Your task to perform on an android device: Search for the best gaming mouses on Amazon. Image 0: 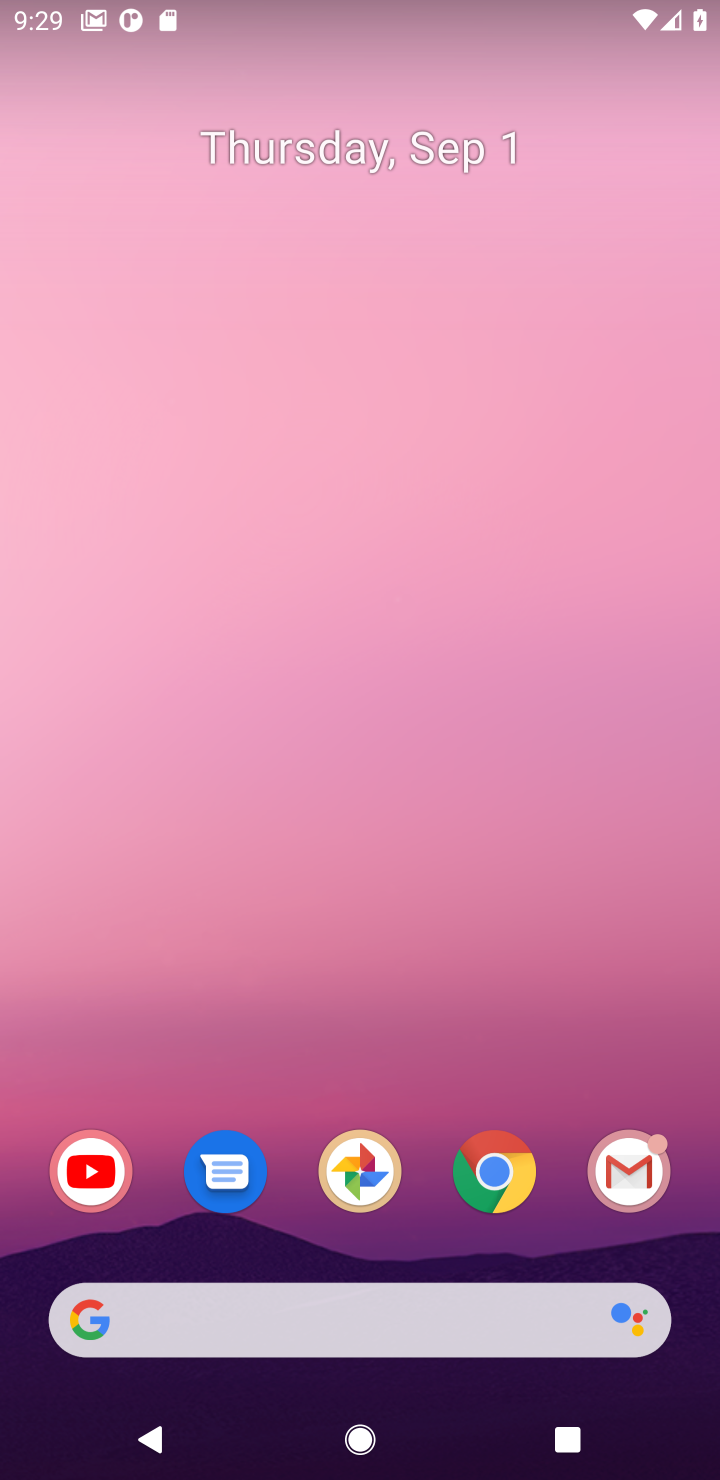
Step 0: press home button
Your task to perform on an android device: Search for the best gaming mouses on Amazon. Image 1: 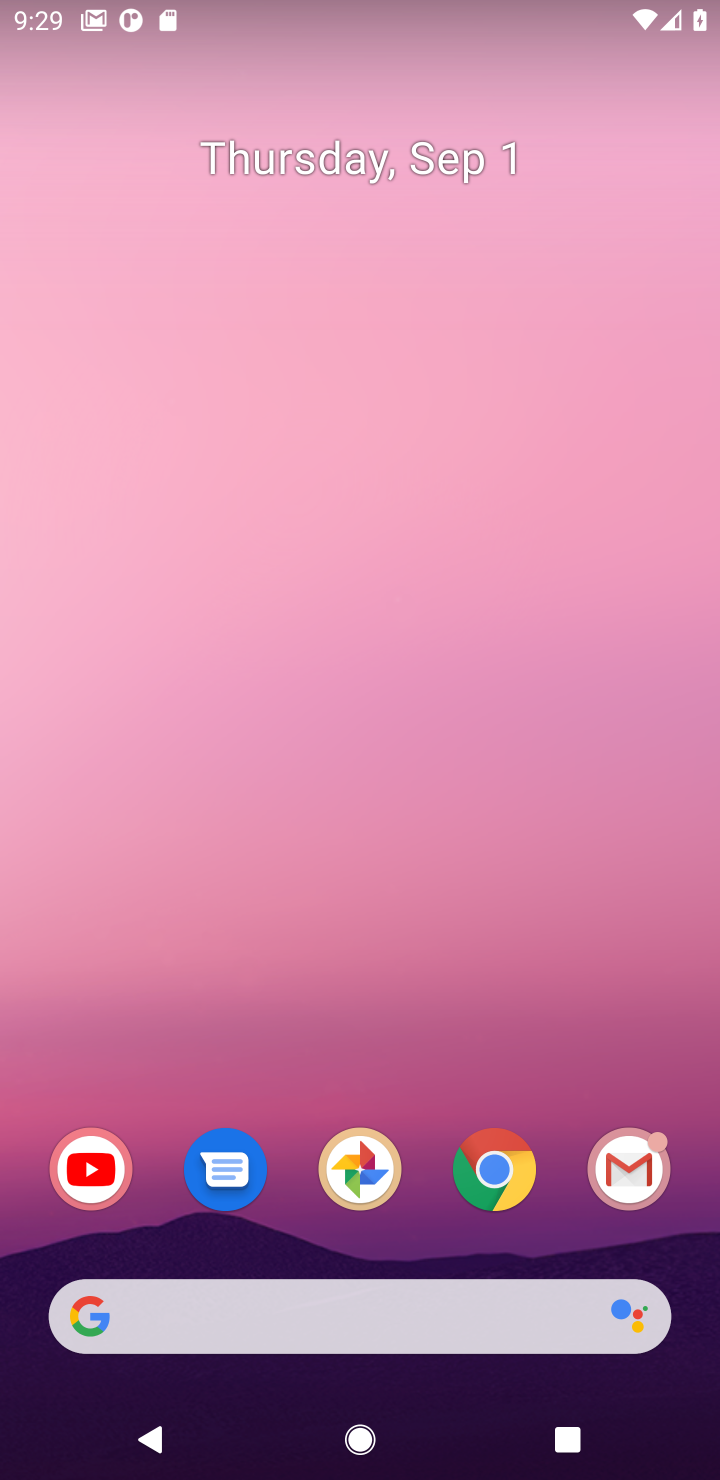
Step 1: drag from (423, 1129) to (411, 95)
Your task to perform on an android device: Search for the best gaming mouses on Amazon. Image 2: 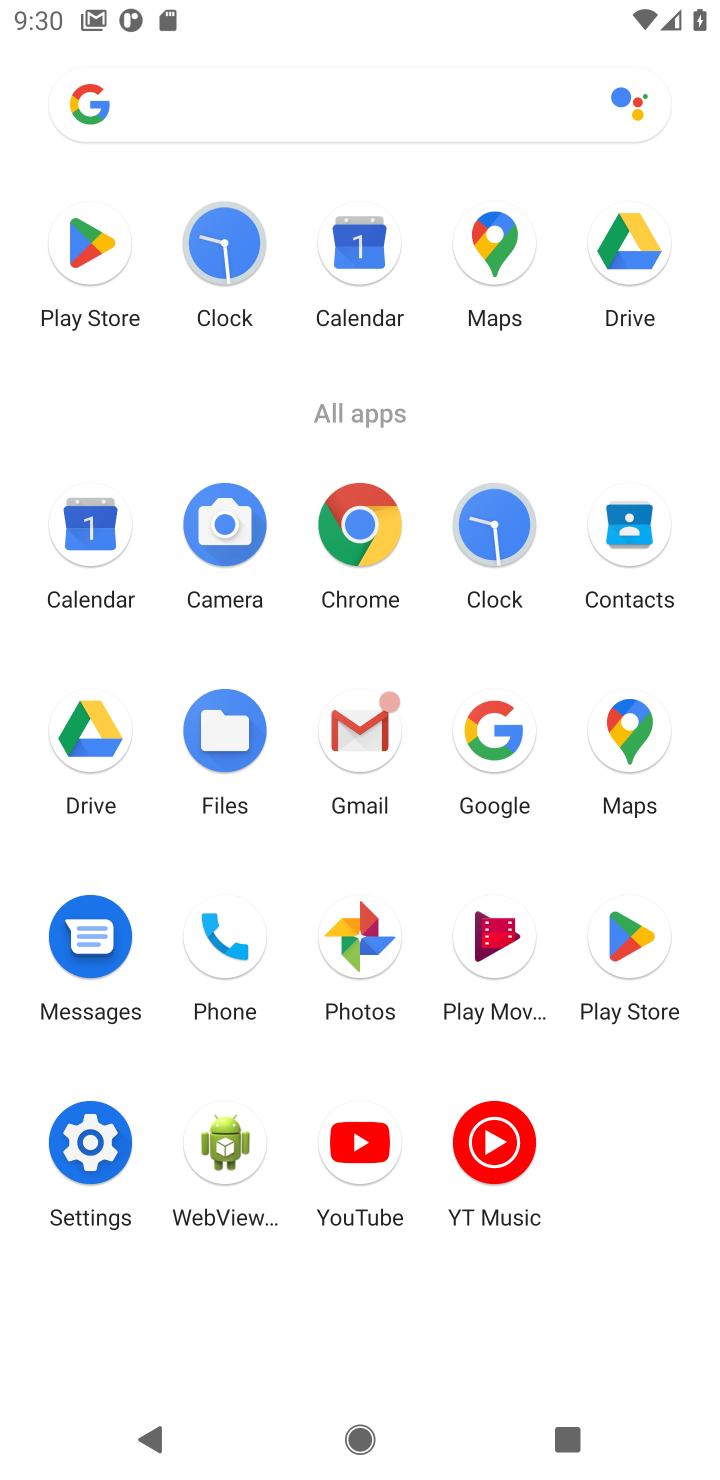
Step 2: click (364, 516)
Your task to perform on an android device: Search for the best gaming mouses on Amazon. Image 3: 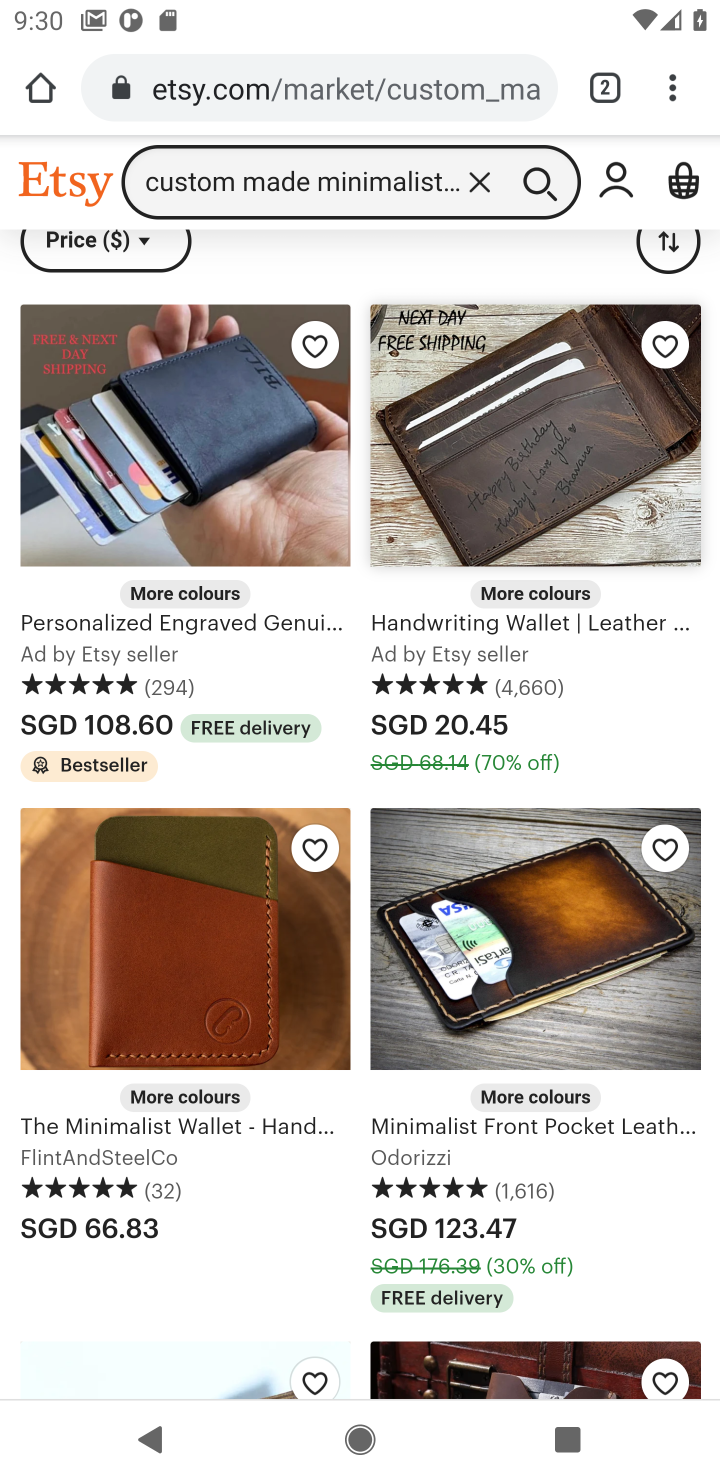
Step 3: click (270, 79)
Your task to perform on an android device: Search for the best gaming mouses on Amazon. Image 4: 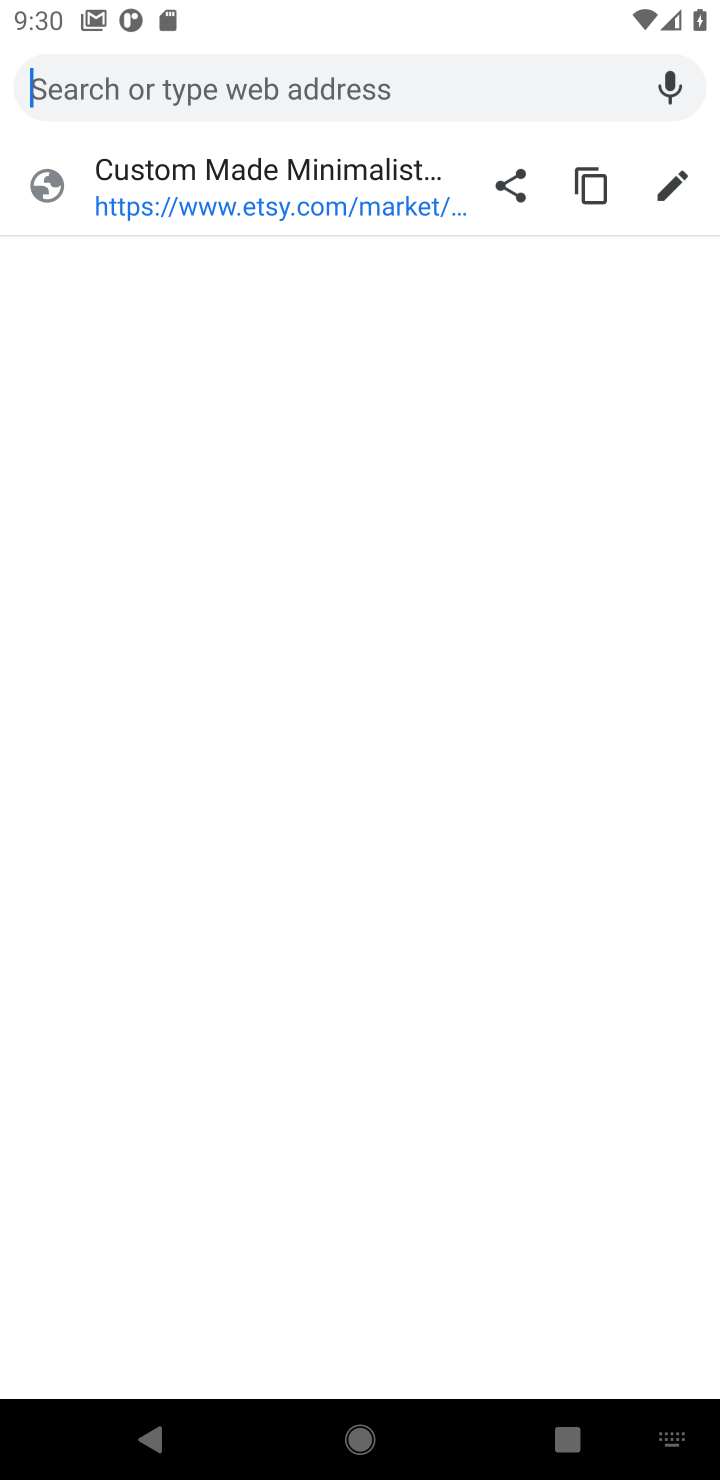
Step 4: type "best gaming mouses on Amazon"
Your task to perform on an android device: Search for the best gaming mouses on Amazon. Image 5: 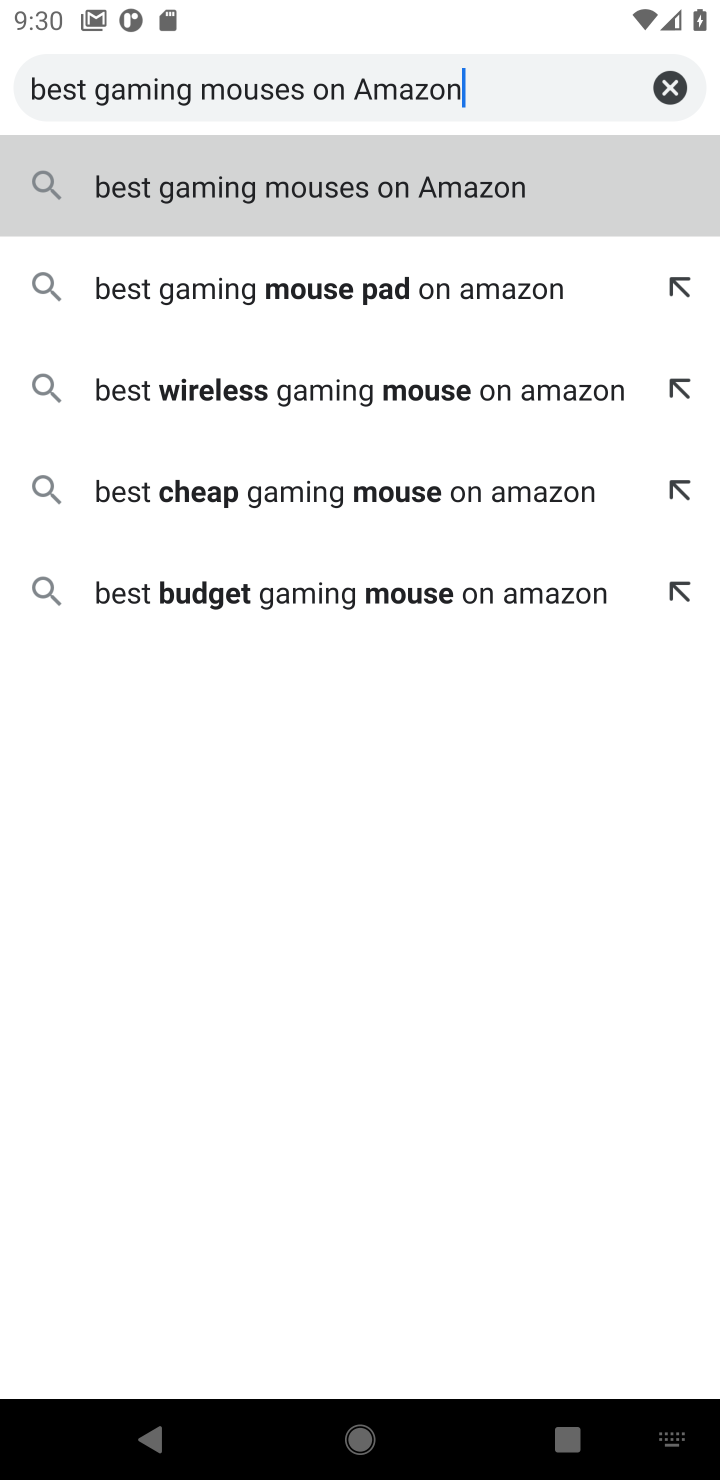
Step 5: click (374, 208)
Your task to perform on an android device: Search for the best gaming mouses on Amazon. Image 6: 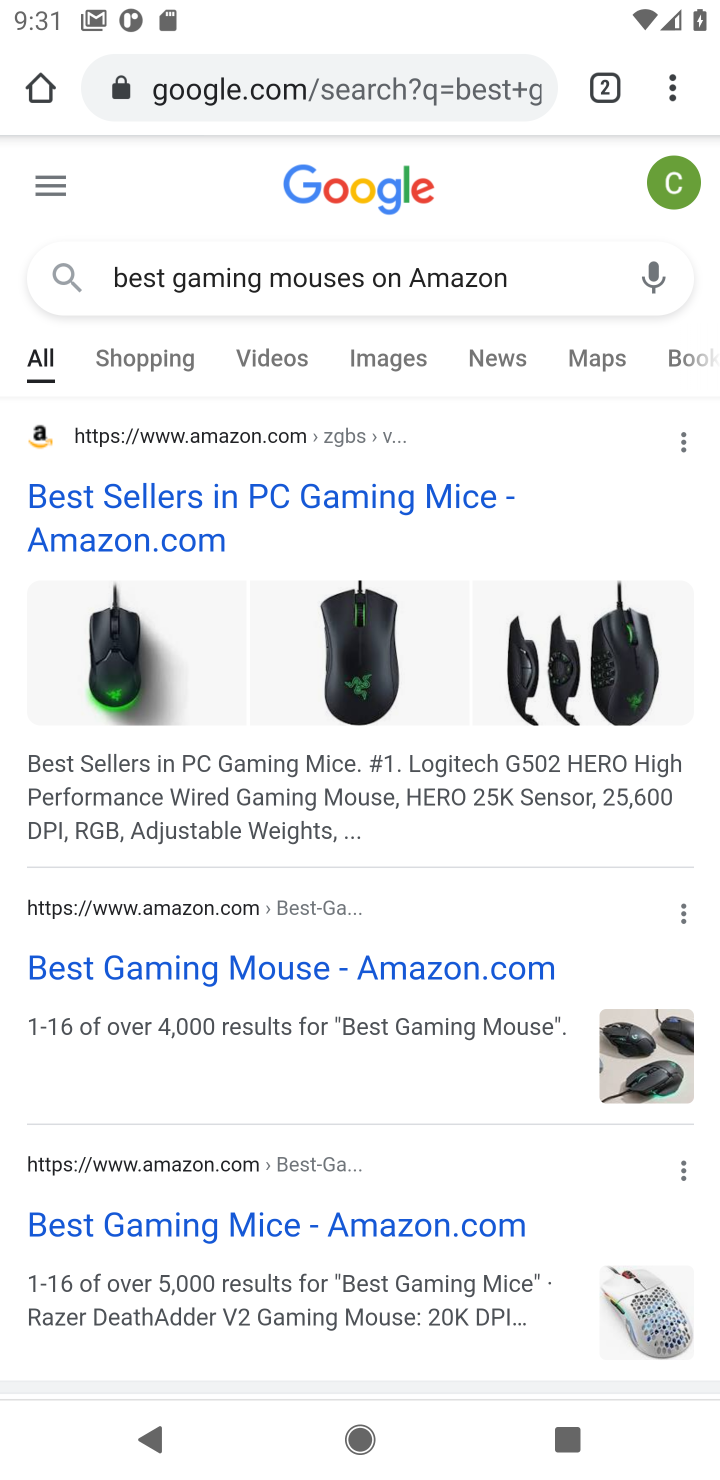
Step 6: click (280, 968)
Your task to perform on an android device: Search for the best gaming mouses on Amazon. Image 7: 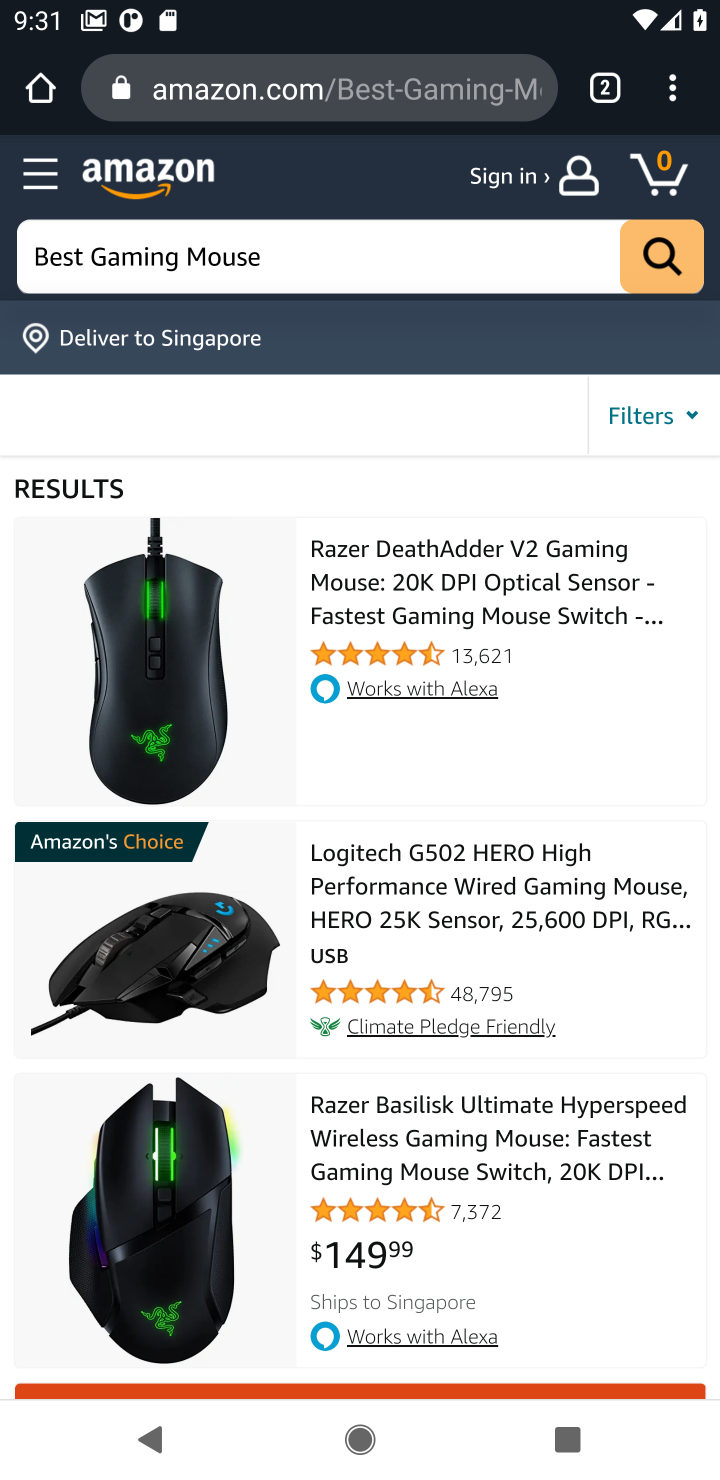
Step 7: task complete